Your task to perform on an android device: change keyboard looks Image 0: 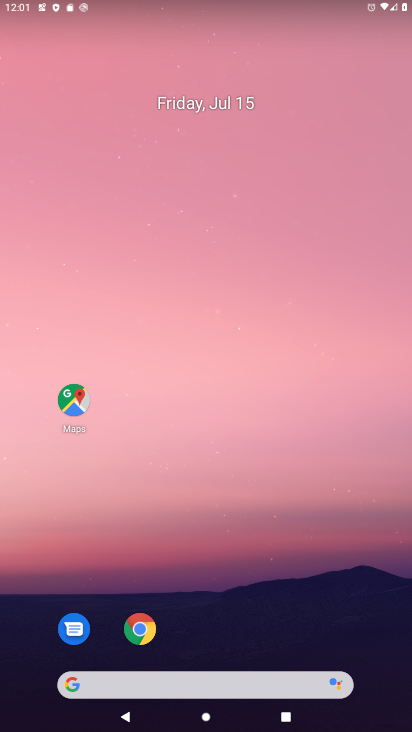
Step 0: press home button
Your task to perform on an android device: change keyboard looks Image 1: 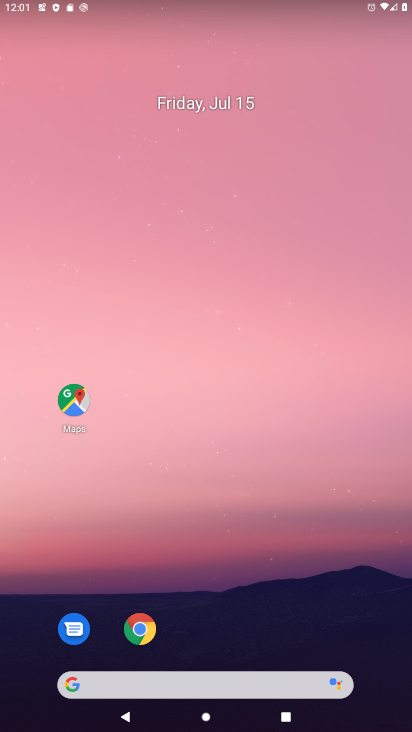
Step 1: drag from (256, 637) to (352, 13)
Your task to perform on an android device: change keyboard looks Image 2: 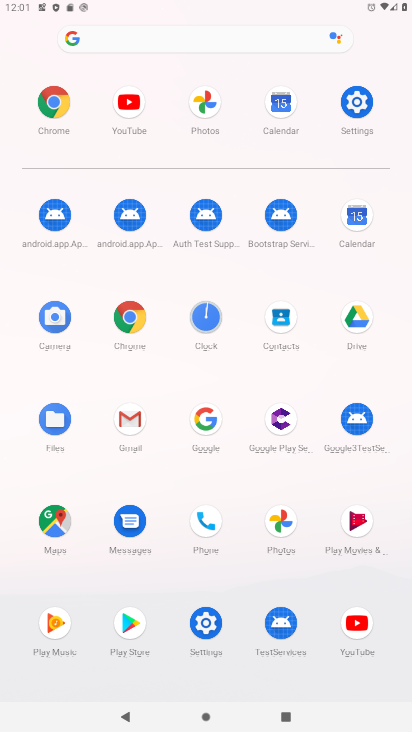
Step 2: click (366, 115)
Your task to perform on an android device: change keyboard looks Image 3: 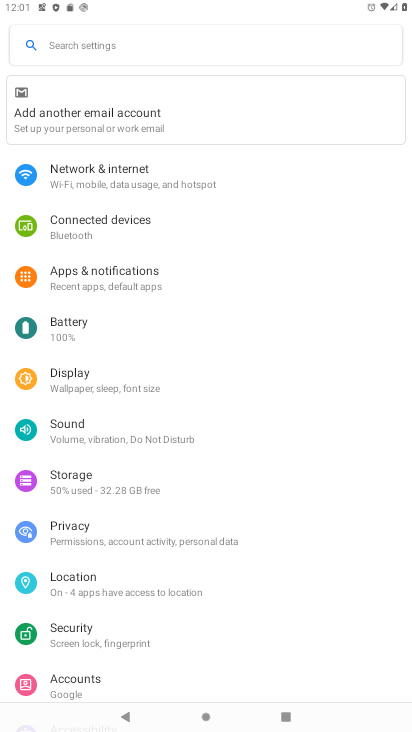
Step 3: drag from (238, 627) to (292, 106)
Your task to perform on an android device: change keyboard looks Image 4: 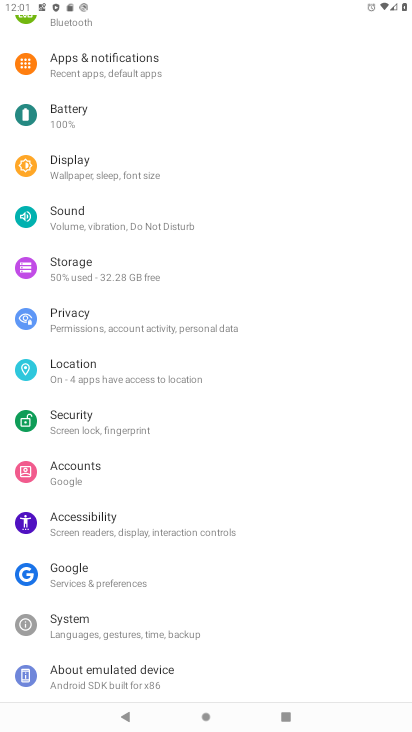
Step 4: click (83, 626)
Your task to perform on an android device: change keyboard looks Image 5: 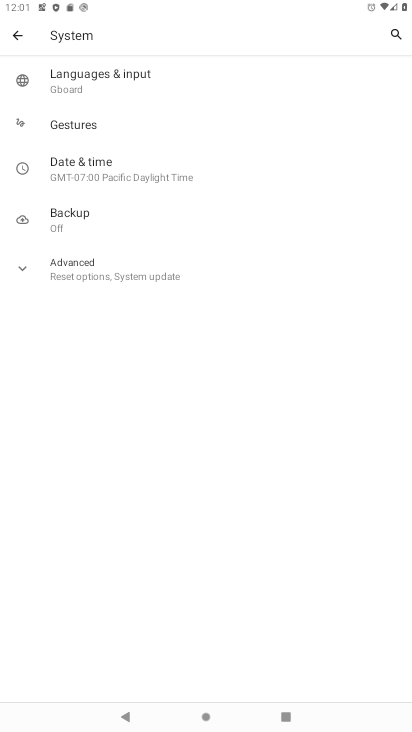
Step 5: click (85, 80)
Your task to perform on an android device: change keyboard looks Image 6: 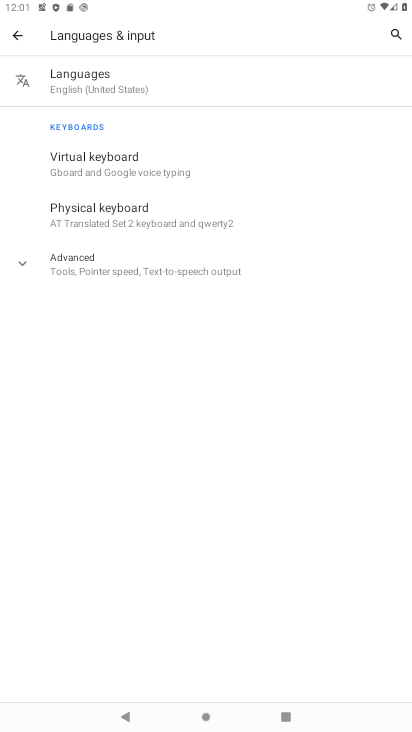
Step 6: click (84, 160)
Your task to perform on an android device: change keyboard looks Image 7: 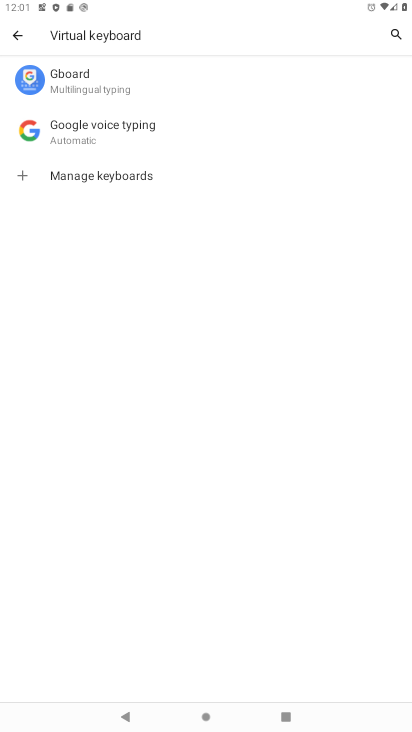
Step 7: click (81, 89)
Your task to perform on an android device: change keyboard looks Image 8: 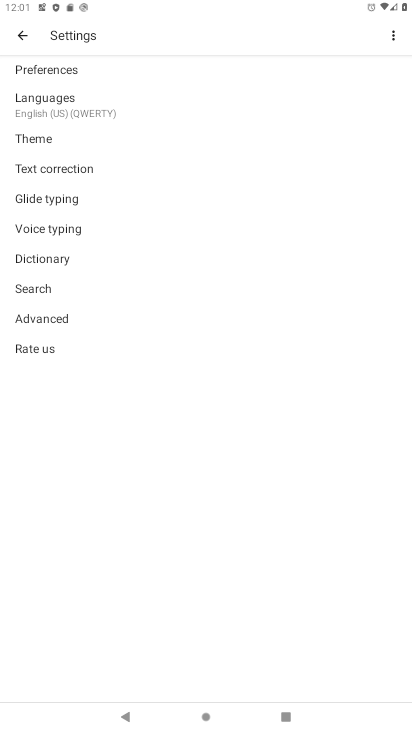
Step 8: click (35, 138)
Your task to perform on an android device: change keyboard looks Image 9: 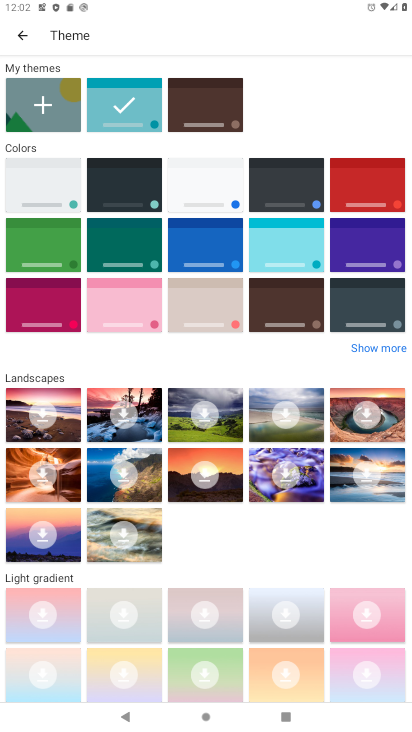
Step 9: click (189, 244)
Your task to perform on an android device: change keyboard looks Image 10: 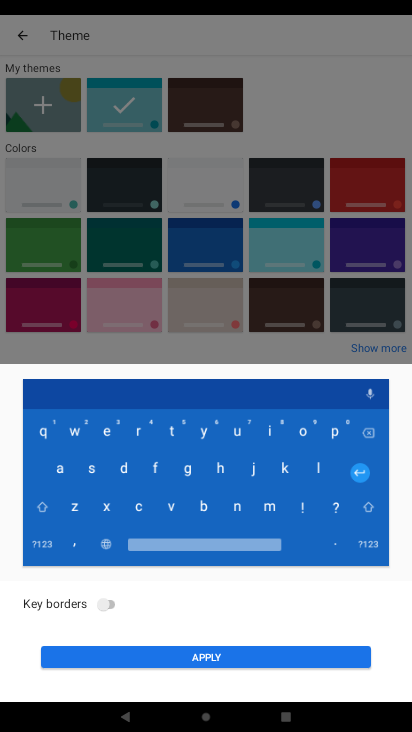
Step 10: click (135, 654)
Your task to perform on an android device: change keyboard looks Image 11: 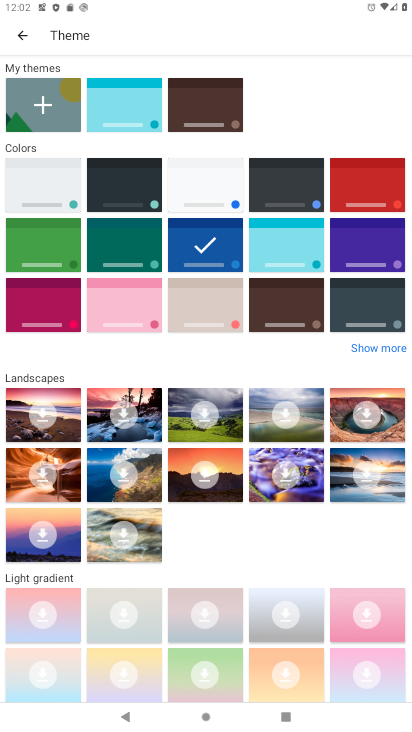
Step 11: task complete